Your task to perform on an android device: move a message to another label in the gmail app Image 0: 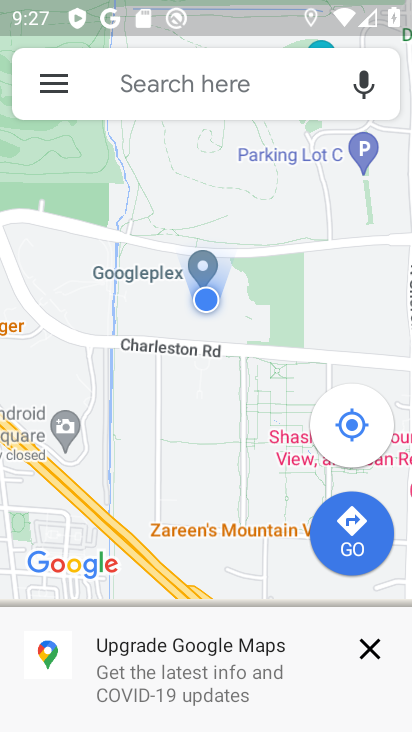
Step 0: press home button
Your task to perform on an android device: move a message to another label in the gmail app Image 1: 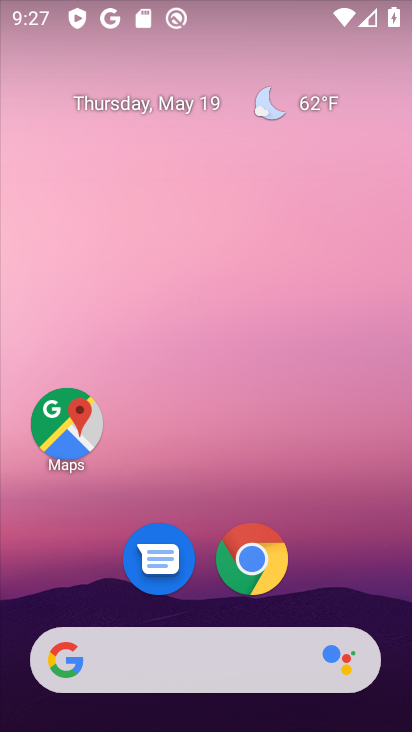
Step 1: drag from (338, 529) to (127, 60)
Your task to perform on an android device: move a message to another label in the gmail app Image 2: 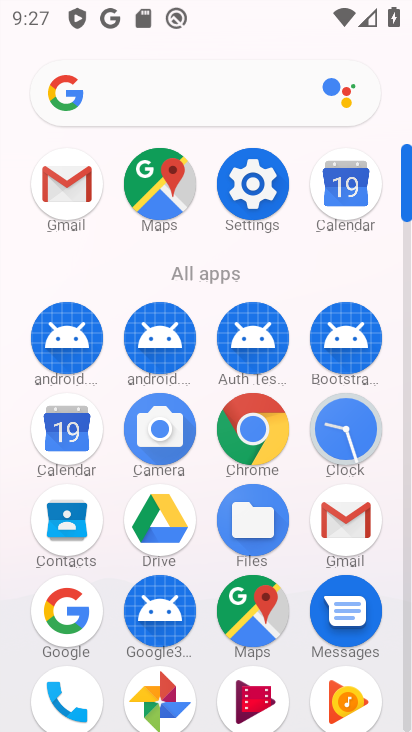
Step 2: click (64, 189)
Your task to perform on an android device: move a message to another label in the gmail app Image 3: 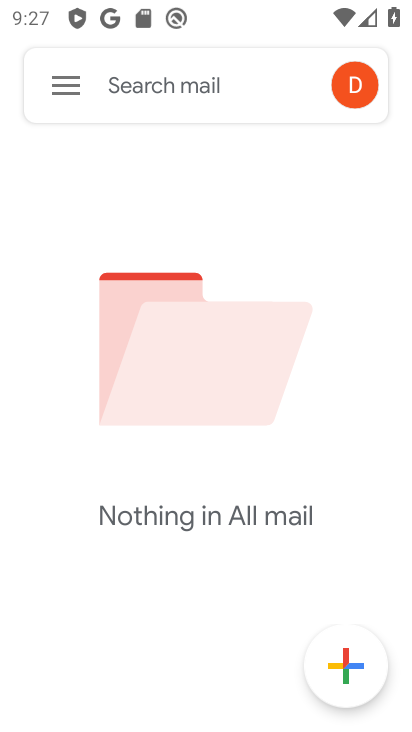
Step 3: task complete